Your task to perform on an android device: Go to internet settings Image 0: 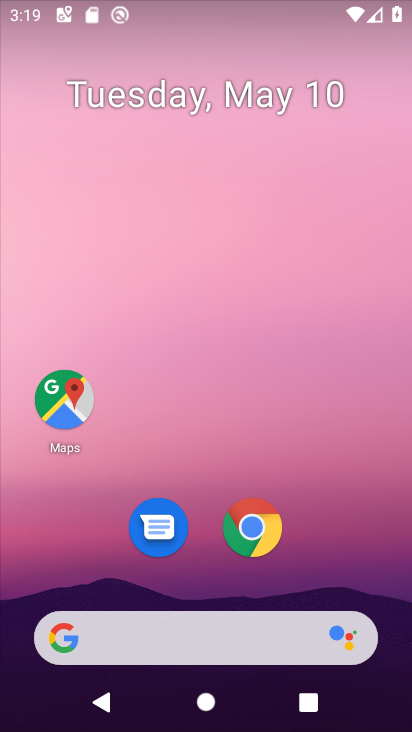
Step 0: drag from (395, 513) to (398, 300)
Your task to perform on an android device: Go to internet settings Image 1: 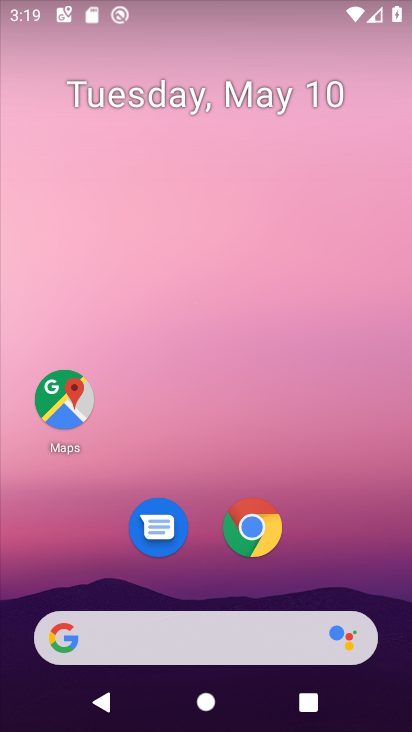
Step 1: drag from (399, 643) to (394, 202)
Your task to perform on an android device: Go to internet settings Image 2: 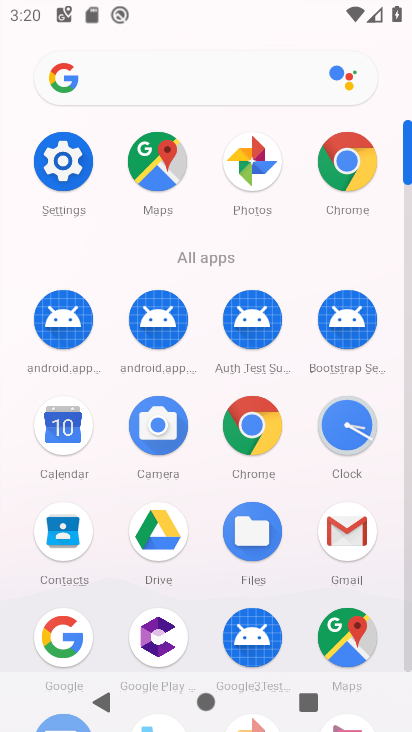
Step 2: click (63, 163)
Your task to perform on an android device: Go to internet settings Image 3: 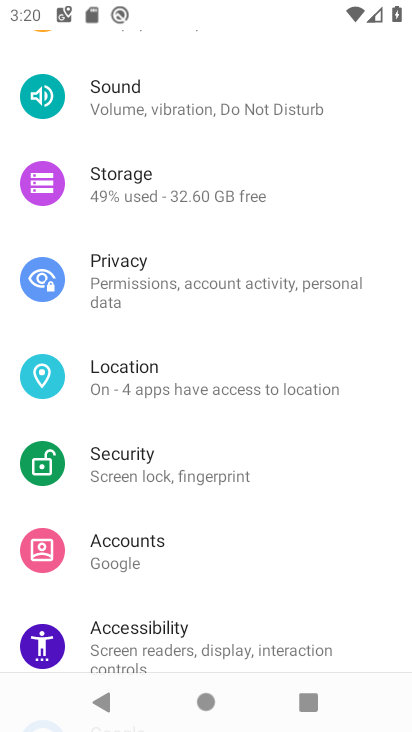
Step 3: drag from (355, 101) to (355, 420)
Your task to perform on an android device: Go to internet settings Image 4: 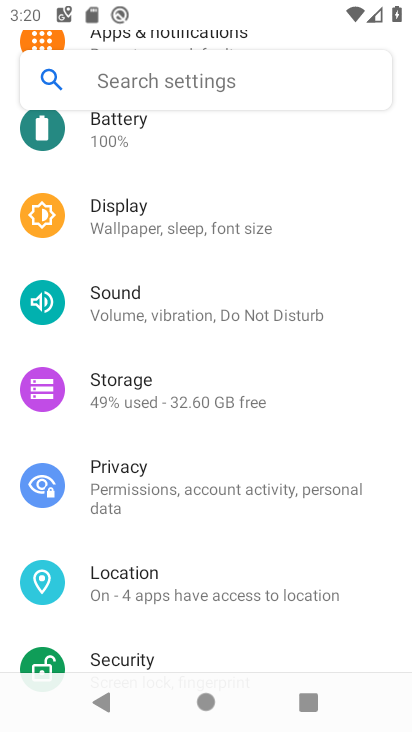
Step 4: drag from (346, 162) to (371, 541)
Your task to perform on an android device: Go to internet settings Image 5: 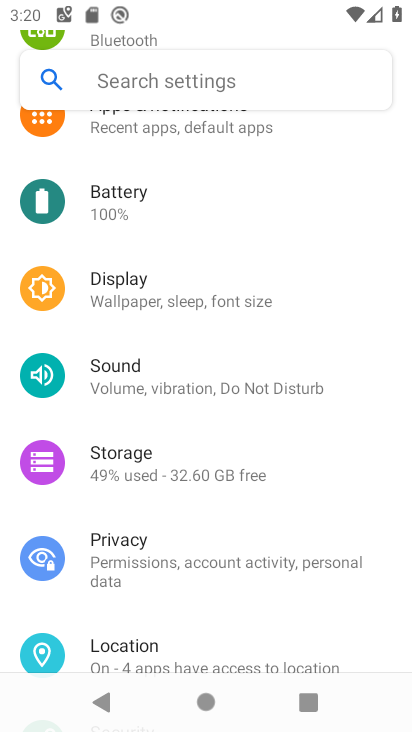
Step 5: click (383, 557)
Your task to perform on an android device: Go to internet settings Image 6: 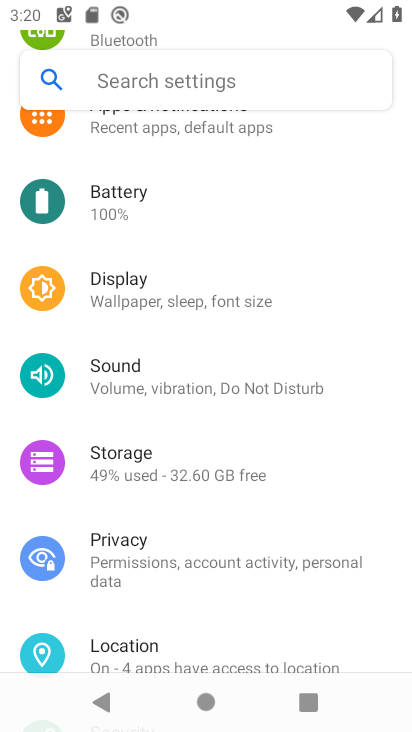
Step 6: drag from (362, 175) to (371, 548)
Your task to perform on an android device: Go to internet settings Image 7: 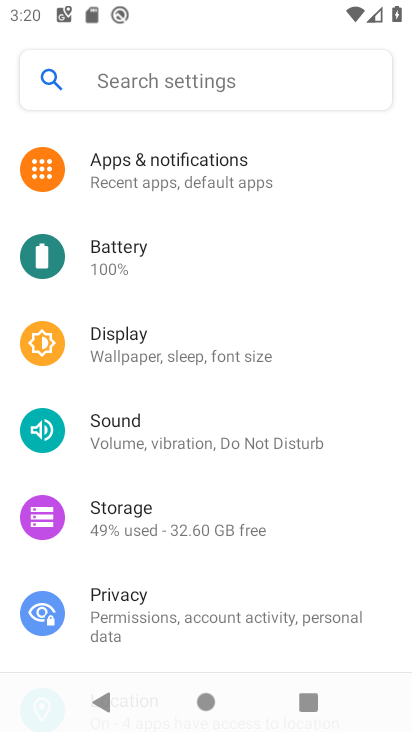
Step 7: drag from (376, 220) to (392, 557)
Your task to perform on an android device: Go to internet settings Image 8: 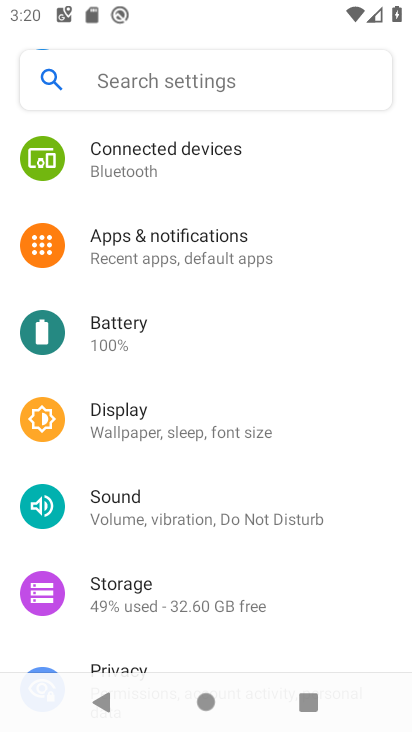
Step 8: drag from (366, 188) to (373, 590)
Your task to perform on an android device: Go to internet settings Image 9: 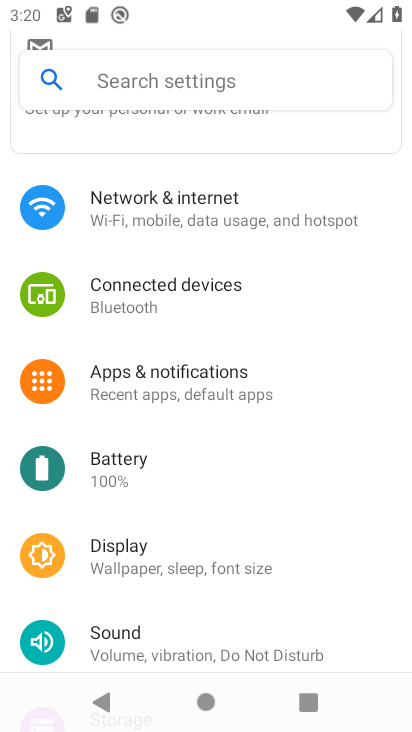
Step 9: click (158, 209)
Your task to perform on an android device: Go to internet settings Image 10: 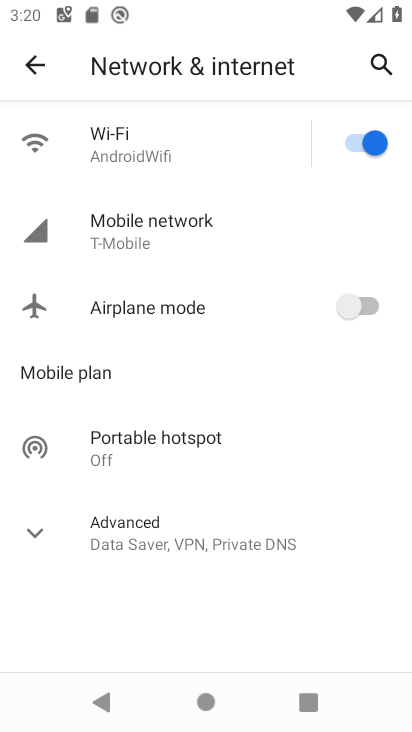
Step 10: click (115, 146)
Your task to perform on an android device: Go to internet settings Image 11: 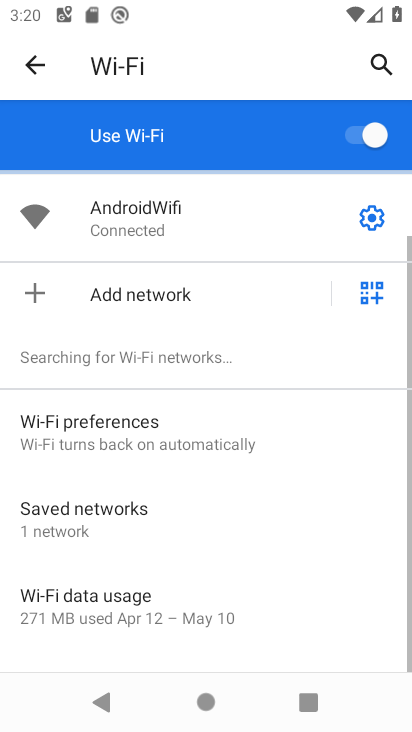
Step 11: click (369, 211)
Your task to perform on an android device: Go to internet settings Image 12: 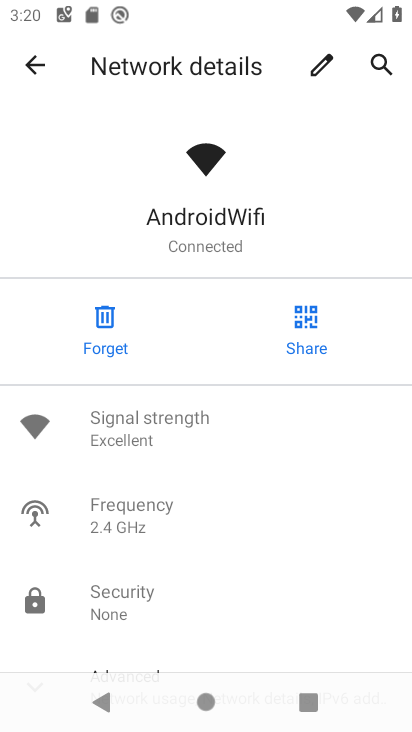
Step 12: task complete